Your task to perform on an android device: Open accessibility settings Image 0: 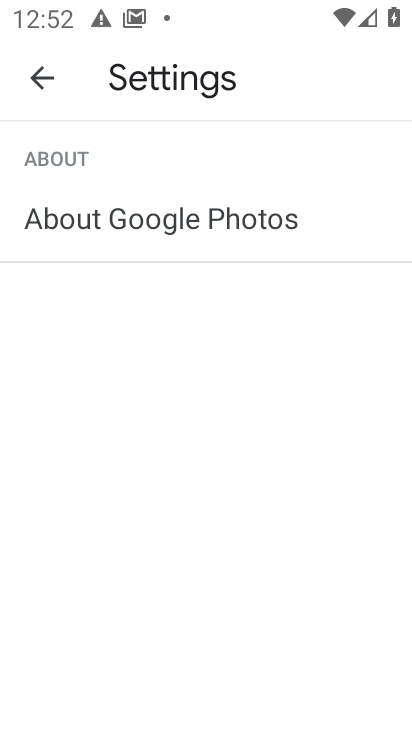
Step 0: press home button
Your task to perform on an android device: Open accessibility settings Image 1: 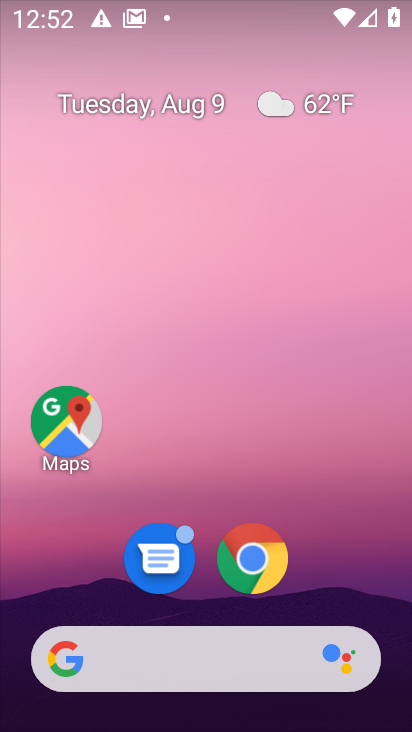
Step 1: drag from (384, 603) to (315, 277)
Your task to perform on an android device: Open accessibility settings Image 2: 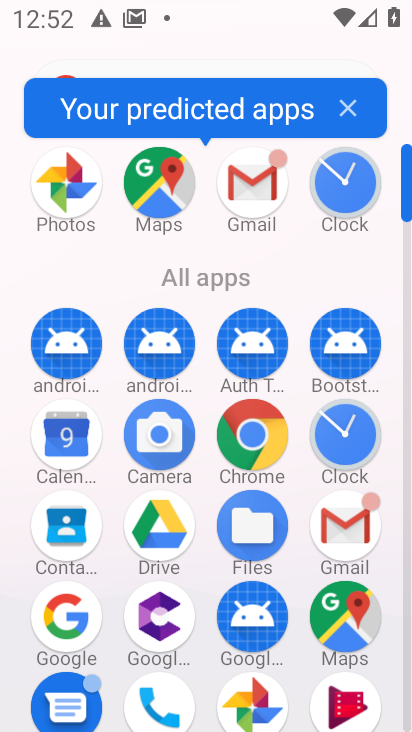
Step 2: drag from (359, 291) to (246, 178)
Your task to perform on an android device: Open accessibility settings Image 3: 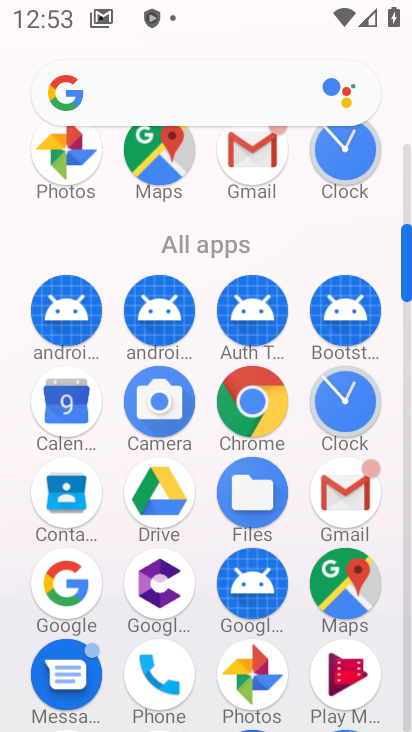
Step 3: drag from (309, 248) to (259, 10)
Your task to perform on an android device: Open accessibility settings Image 4: 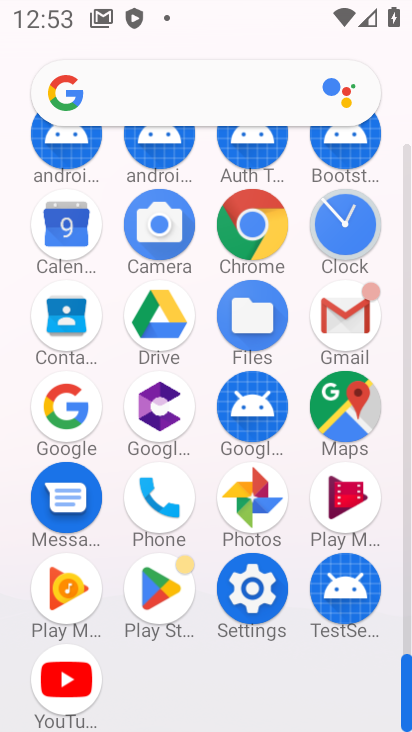
Step 4: click (245, 583)
Your task to perform on an android device: Open accessibility settings Image 5: 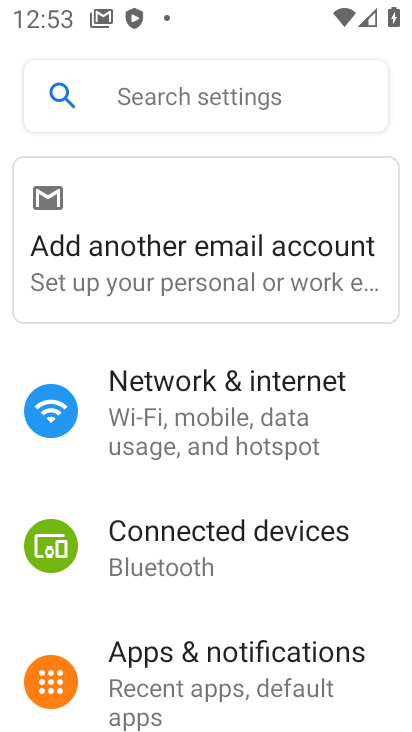
Step 5: drag from (398, 504) to (379, 204)
Your task to perform on an android device: Open accessibility settings Image 6: 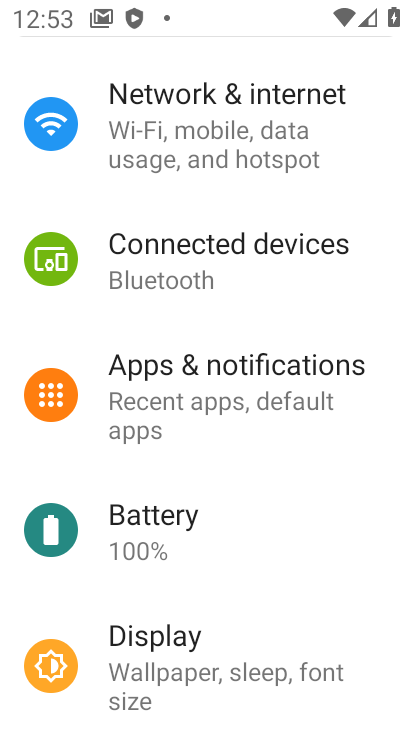
Step 6: drag from (347, 618) to (299, 255)
Your task to perform on an android device: Open accessibility settings Image 7: 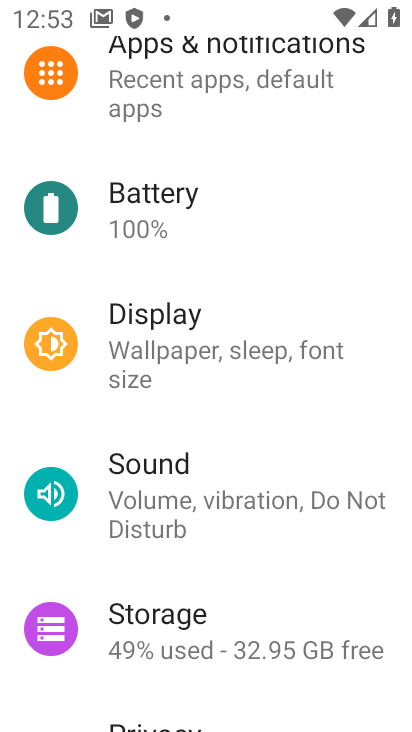
Step 7: drag from (345, 584) to (302, 175)
Your task to perform on an android device: Open accessibility settings Image 8: 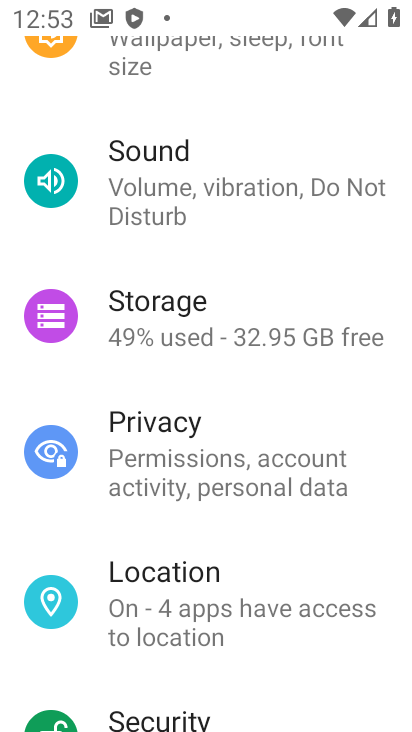
Step 8: drag from (364, 545) to (319, 270)
Your task to perform on an android device: Open accessibility settings Image 9: 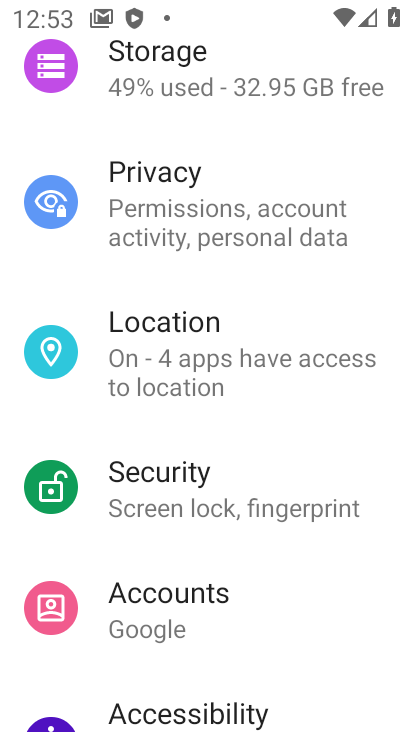
Step 9: click (260, 708)
Your task to perform on an android device: Open accessibility settings Image 10: 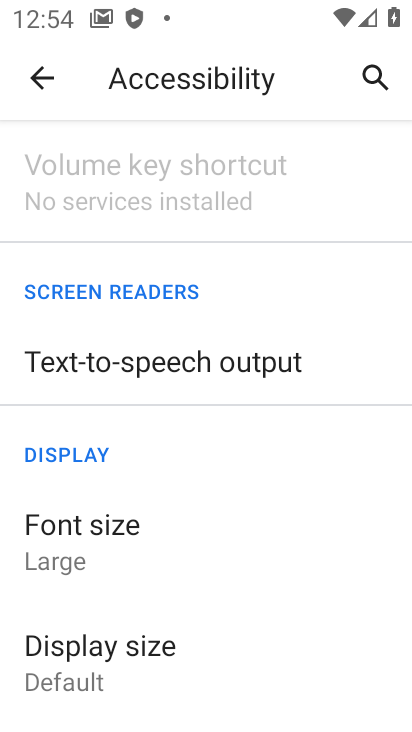
Step 10: task complete